Your task to perform on an android device: turn off location history Image 0: 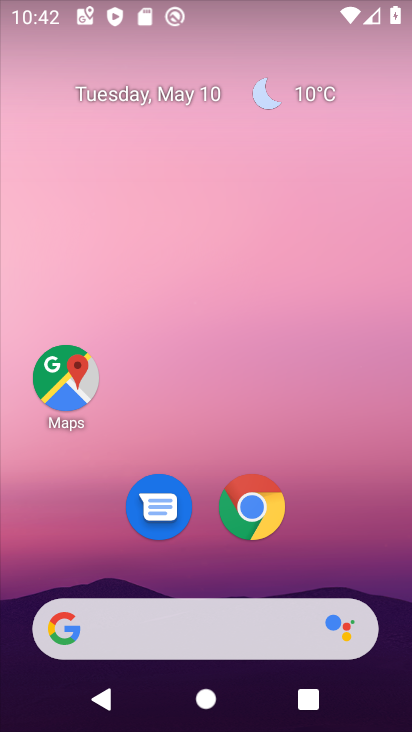
Step 0: drag from (225, 723) to (228, 117)
Your task to perform on an android device: turn off location history Image 1: 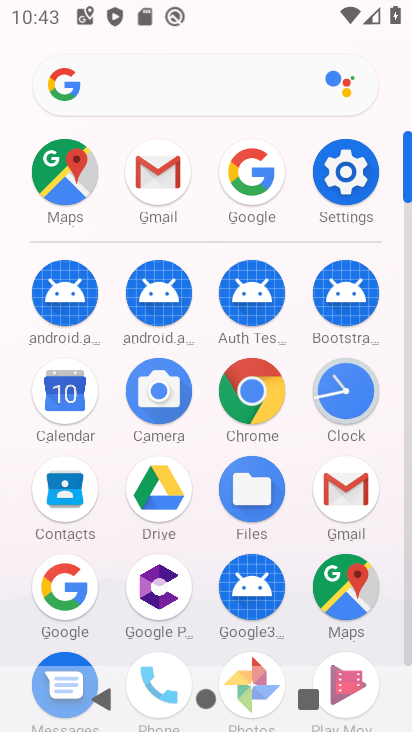
Step 1: click (341, 166)
Your task to perform on an android device: turn off location history Image 2: 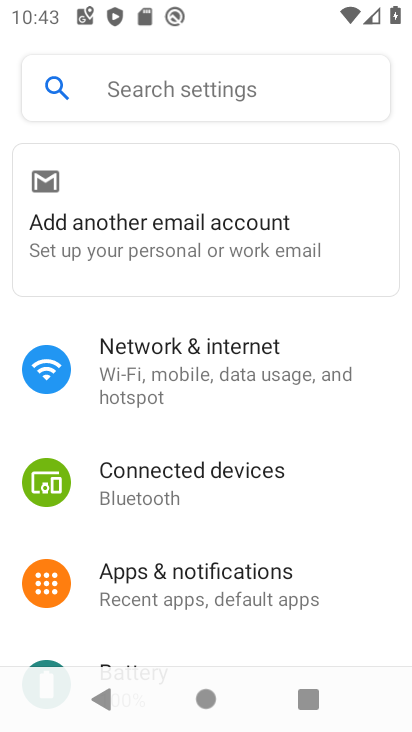
Step 2: drag from (147, 633) to (147, 258)
Your task to perform on an android device: turn off location history Image 3: 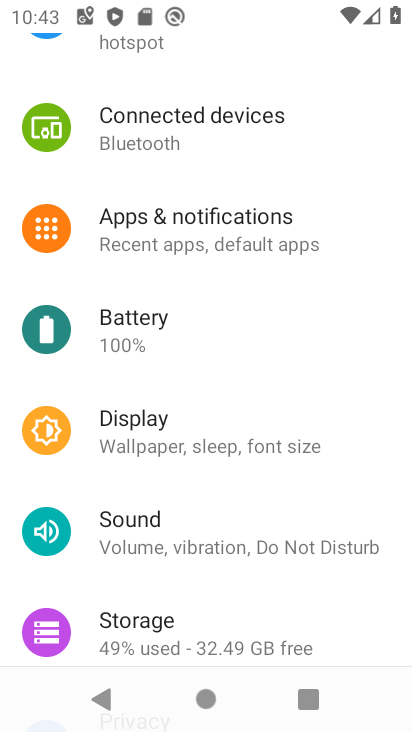
Step 3: drag from (166, 601) to (188, 251)
Your task to perform on an android device: turn off location history Image 4: 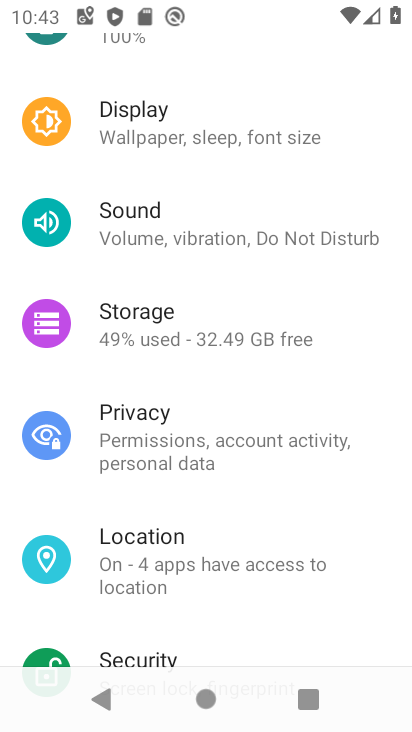
Step 4: click (152, 553)
Your task to perform on an android device: turn off location history Image 5: 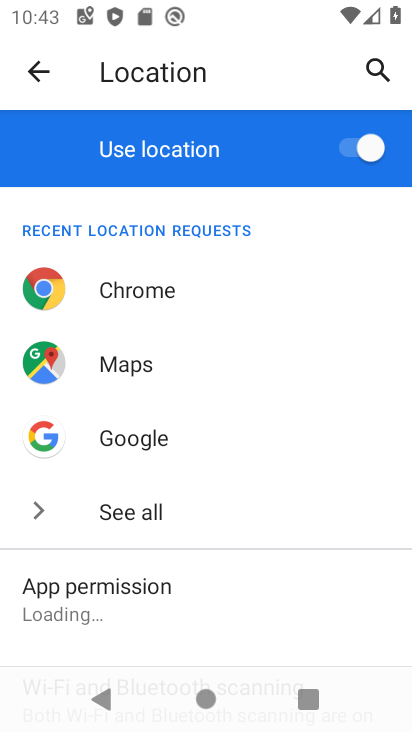
Step 5: drag from (158, 630) to (192, 250)
Your task to perform on an android device: turn off location history Image 6: 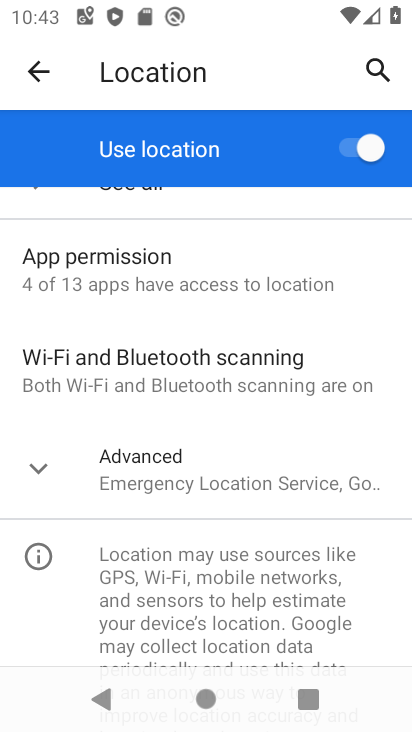
Step 6: click (122, 469)
Your task to perform on an android device: turn off location history Image 7: 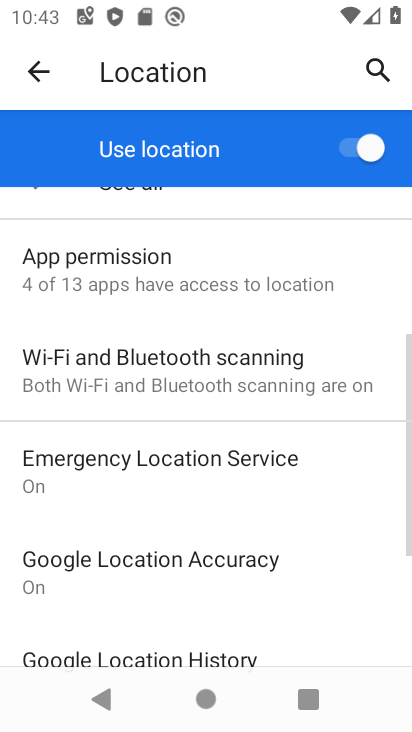
Step 7: drag from (174, 624) to (174, 329)
Your task to perform on an android device: turn off location history Image 8: 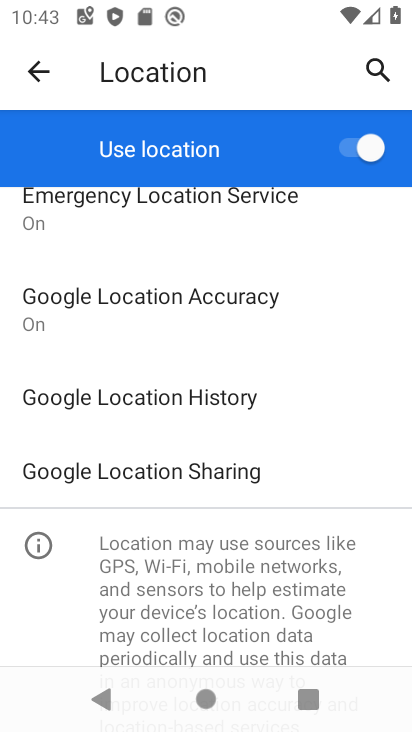
Step 8: click (153, 398)
Your task to perform on an android device: turn off location history Image 9: 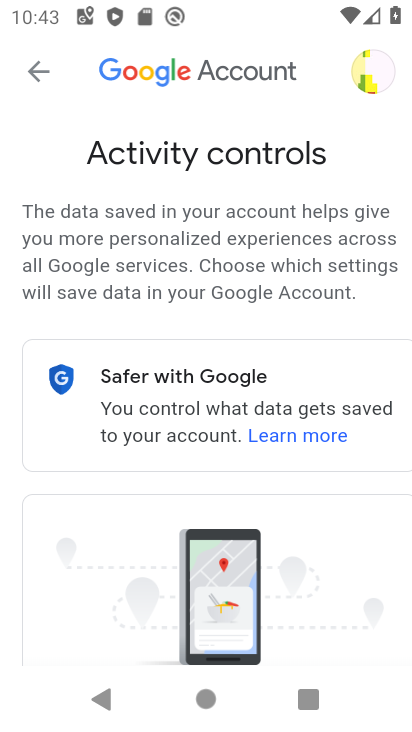
Step 9: drag from (218, 576) to (218, 197)
Your task to perform on an android device: turn off location history Image 10: 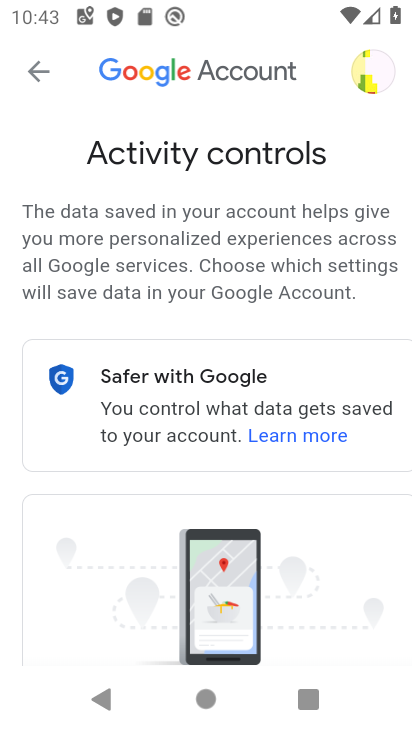
Step 10: drag from (279, 610) to (280, 253)
Your task to perform on an android device: turn off location history Image 11: 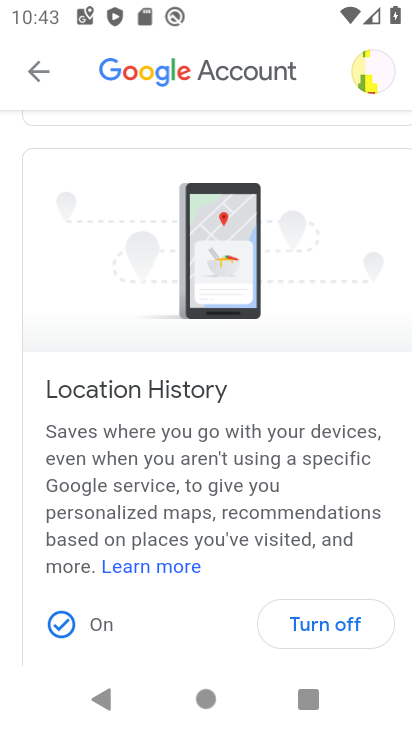
Step 11: click (333, 624)
Your task to perform on an android device: turn off location history Image 12: 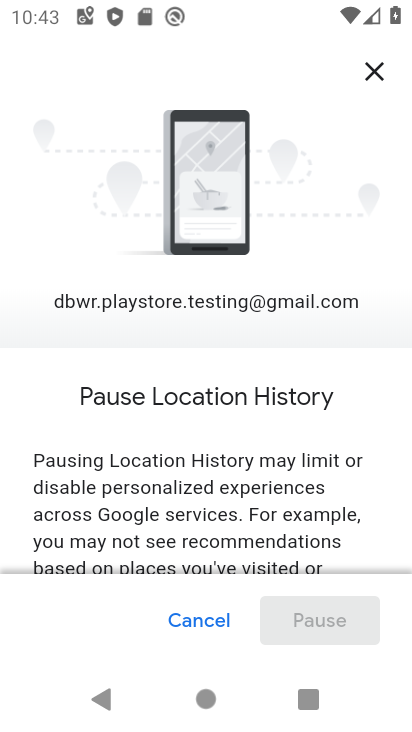
Step 12: drag from (93, 552) to (134, 225)
Your task to perform on an android device: turn off location history Image 13: 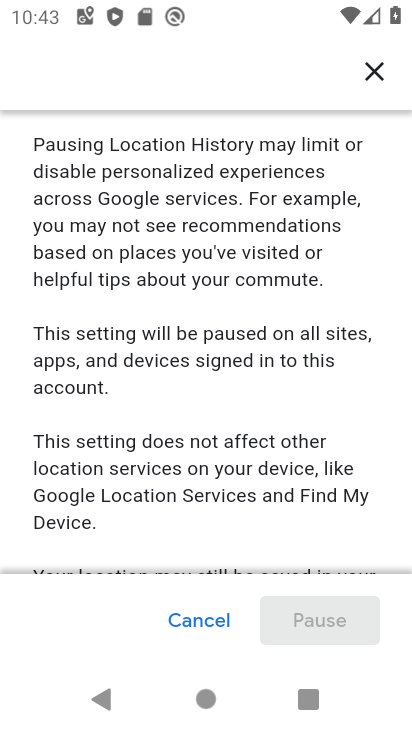
Step 13: drag from (224, 538) to (219, 135)
Your task to perform on an android device: turn off location history Image 14: 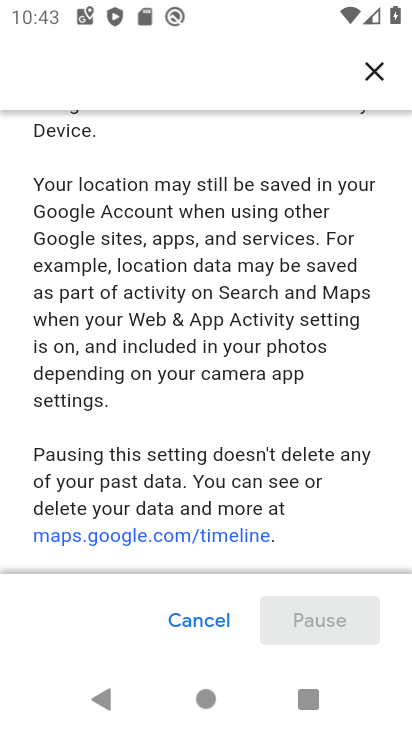
Step 14: drag from (189, 526) to (196, 151)
Your task to perform on an android device: turn off location history Image 15: 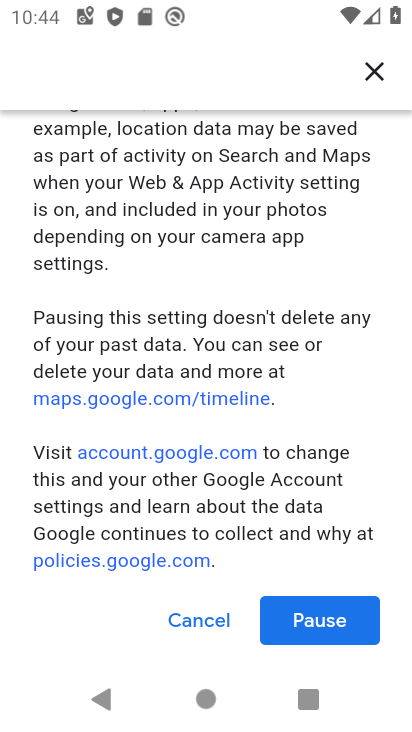
Step 15: click (327, 616)
Your task to perform on an android device: turn off location history Image 16: 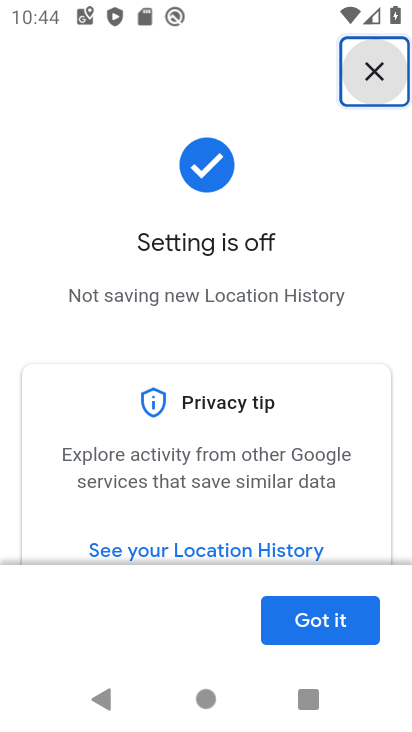
Step 16: click (315, 613)
Your task to perform on an android device: turn off location history Image 17: 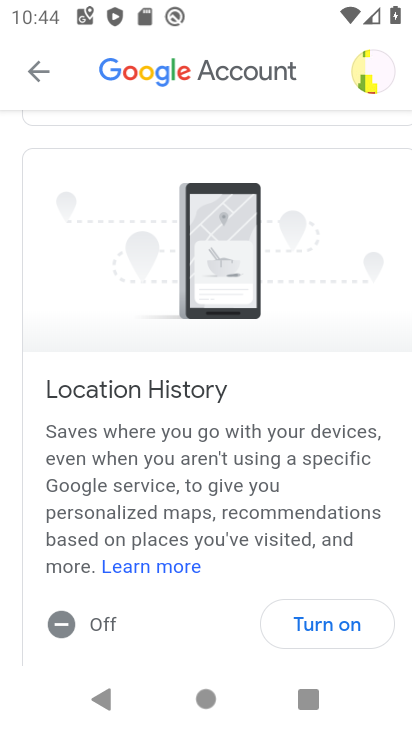
Step 17: task complete